Your task to perform on an android device: snooze an email in the gmail app Image 0: 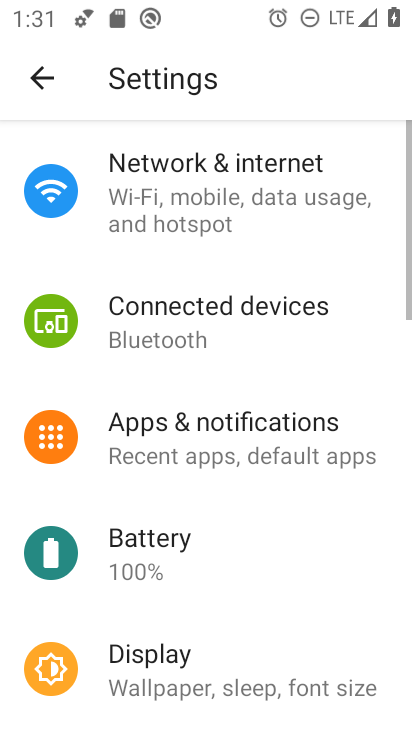
Step 0: press home button
Your task to perform on an android device: snooze an email in the gmail app Image 1: 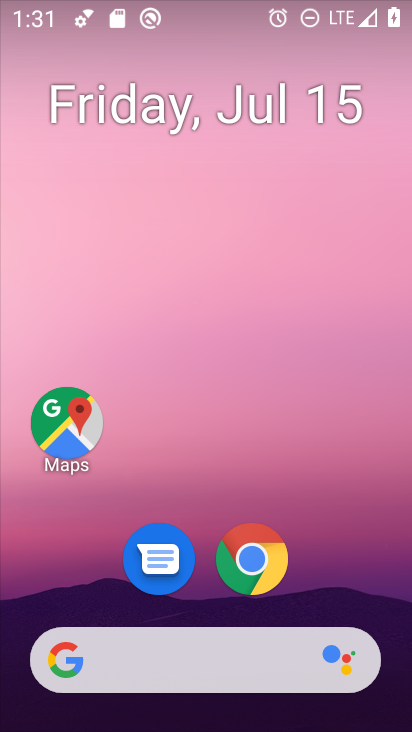
Step 1: drag from (358, 567) to (381, 50)
Your task to perform on an android device: snooze an email in the gmail app Image 2: 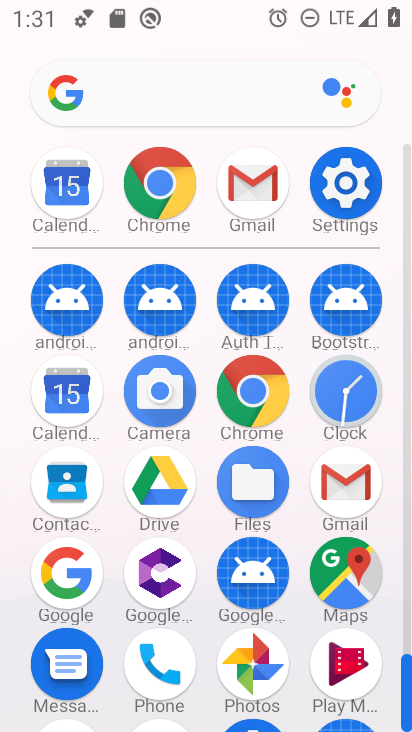
Step 2: click (254, 194)
Your task to perform on an android device: snooze an email in the gmail app Image 3: 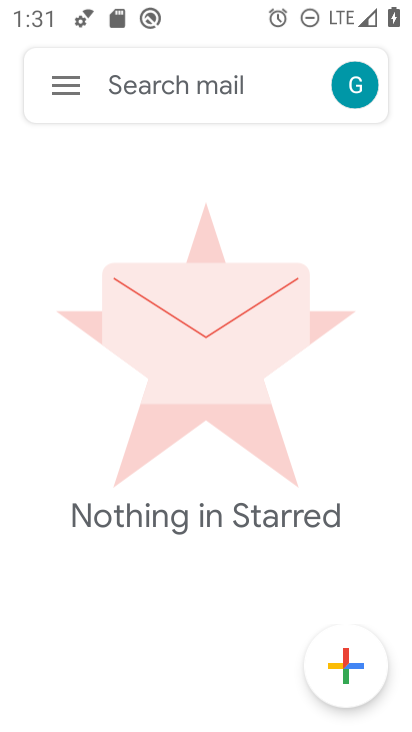
Step 3: click (59, 90)
Your task to perform on an android device: snooze an email in the gmail app Image 4: 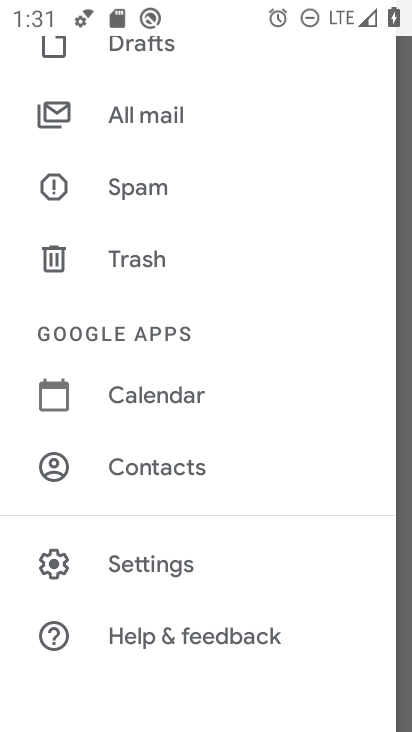
Step 4: drag from (271, 189) to (276, 335)
Your task to perform on an android device: snooze an email in the gmail app Image 5: 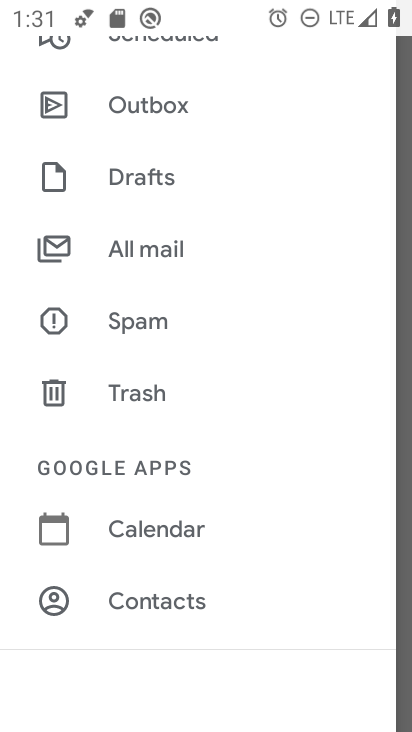
Step 5: drag from (329, 221) to (329, 324)
Your task to perform on an android device: snooze an email in the gmail app Image 6: 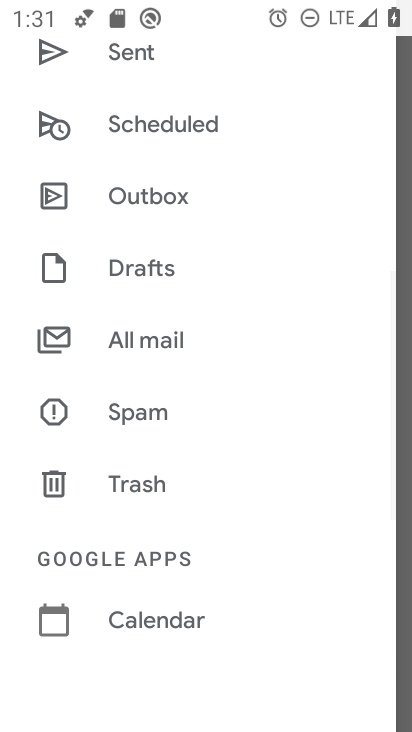
Step 6: drag from (326, 177) to (320, 280)
Your task to perform on an android device: snooze an email in the gmail app Image 7: 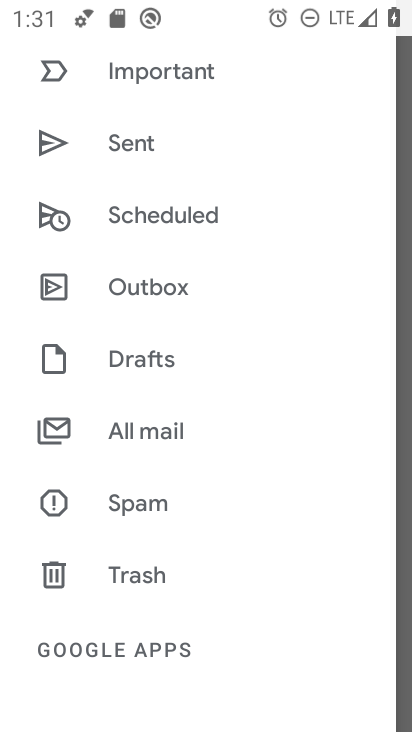
Step 7: drag from (330, 146) to (314, 275)
Your task to perform on an android device: snooze an email in the gmail app Image 8: 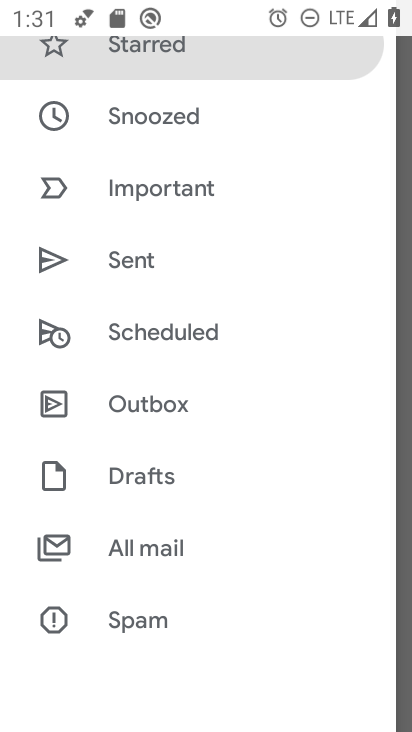
Step 8: drag from (313, 184) to (314, 326)
Your task to perform on an android device: snooze an email in the gmail app Image 9: 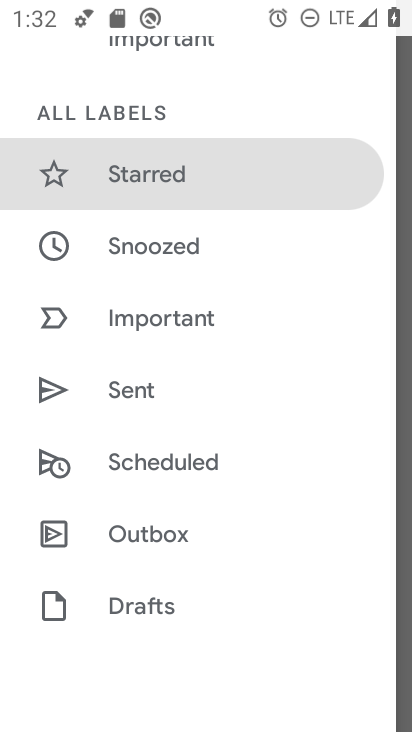
Step 9: click (250, 251)
Your task to perform on an android device: snooze an email in the gmail app Image 10: 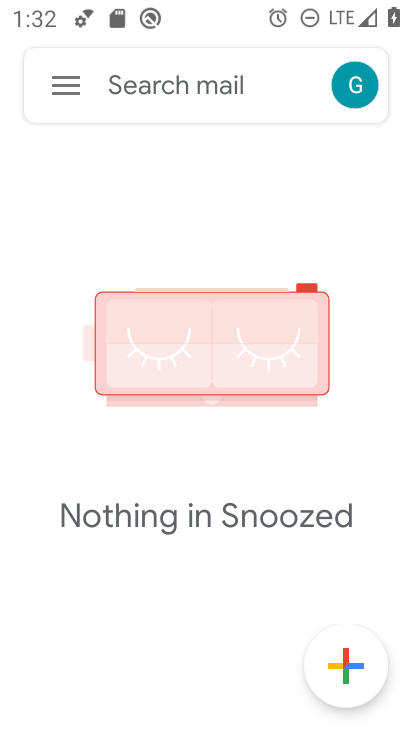
Step 10: task complete